Your task to perform on an android device: open chrome and create a bookmark for the current page Image 0: 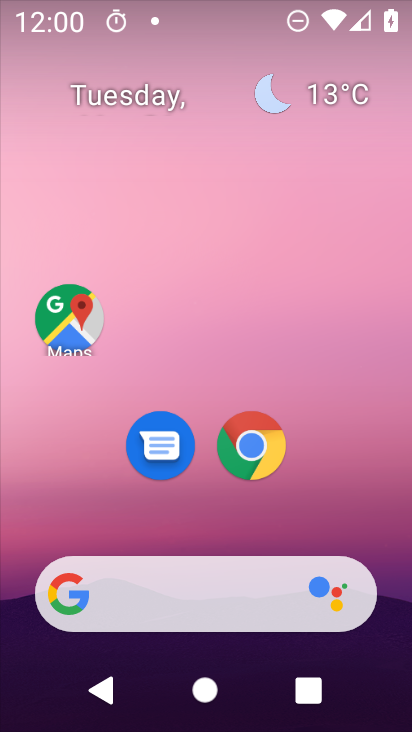
Step 0: click (250, 448)
Your task to perform on an android device: open chrome and create a bookmark for the current page Image 1: 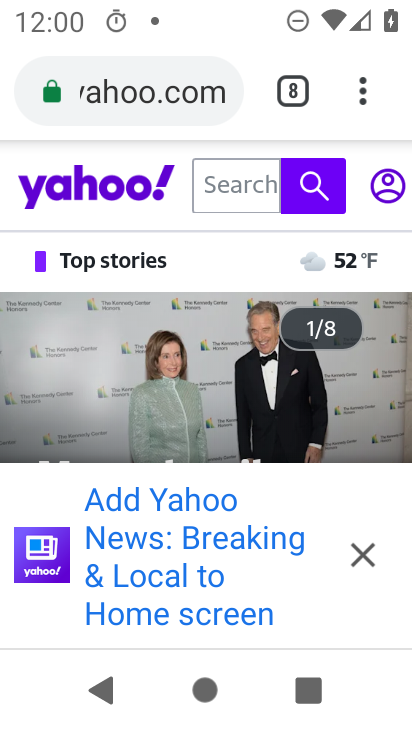
Step 1: task complete